Your task to perform on an android device: Open Google Maps Image 0: 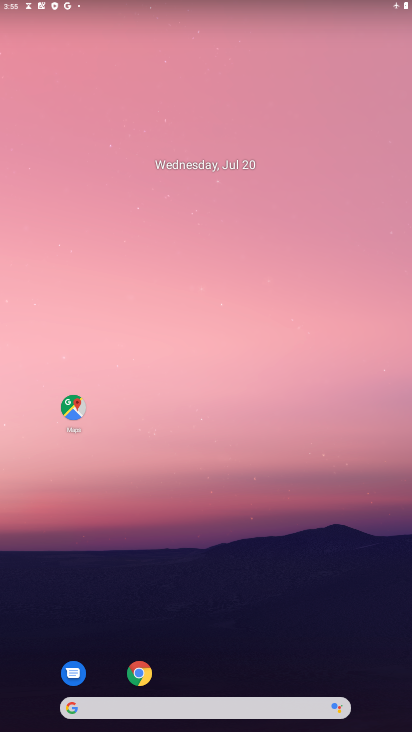
Step 0: press home button
Your task to perform on an android device: Open Google Maps Image 1: 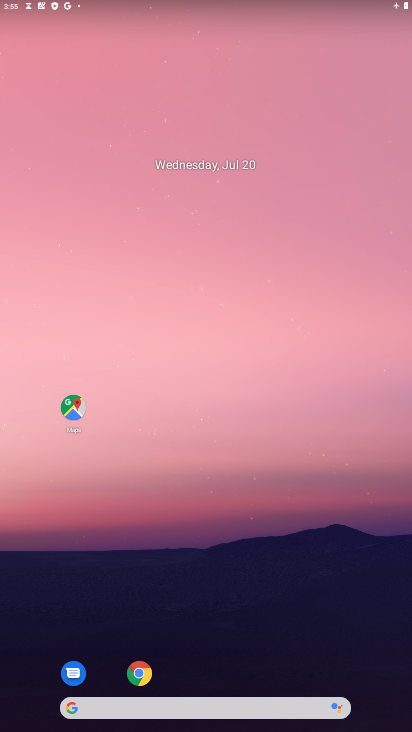
Step 1: drag from (236, 631) to (212, 81)
Your task to perform on an android device: Open Google Maps Image 2: 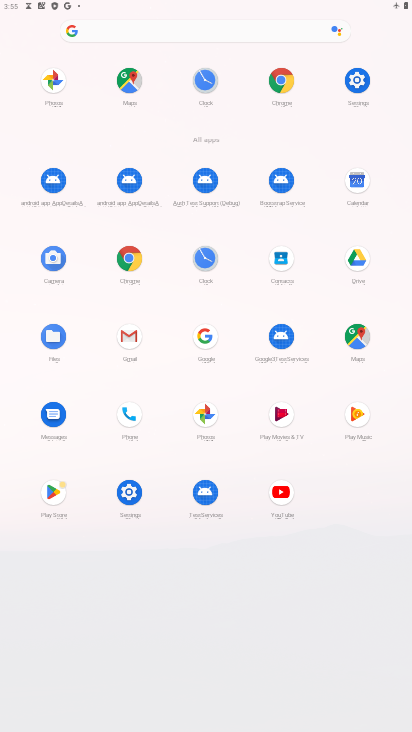
Step 2: click (126, 82)
Your task to perform on an android device: Open Google Maps Image 3: 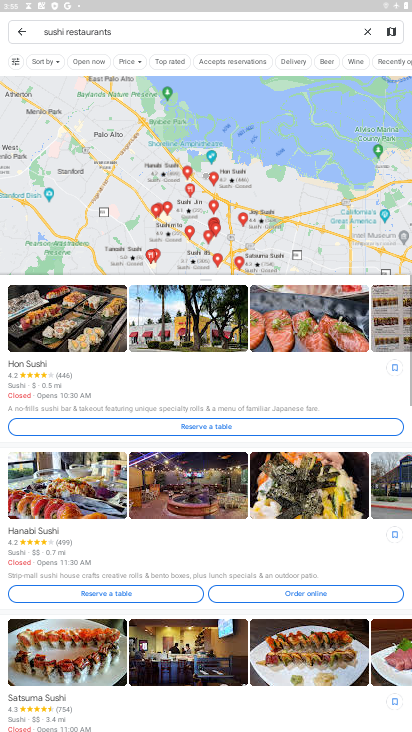
Step 3: click (22, 31)
Your task to perform on an android device: Open Google Maps Image 4: 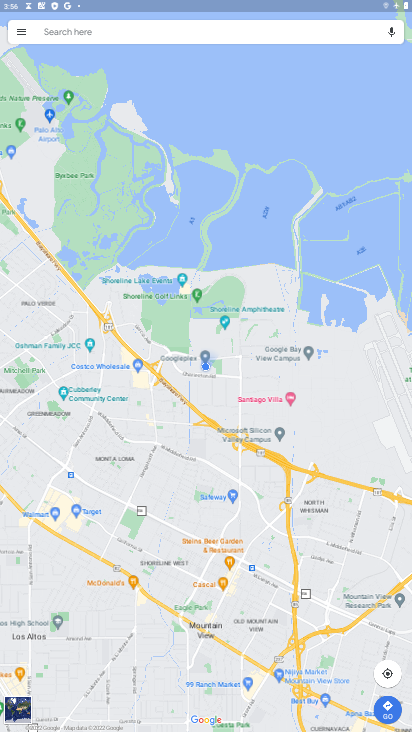
Step 4: task complete